Your task to perform on an android device: What is the news today? Image 0: 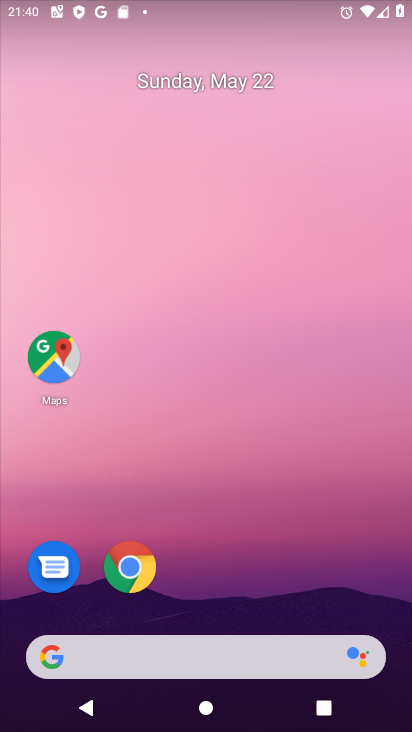
Step 0: click (184, 644)
Your task to perform on an android device: What is the news today? Image 1: 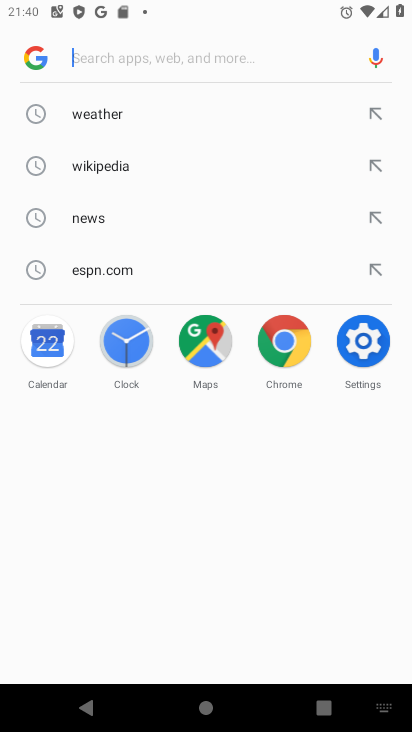
Step 1: type "news today ?"
Your task to perform on an android device: What is the news today? Image 2: 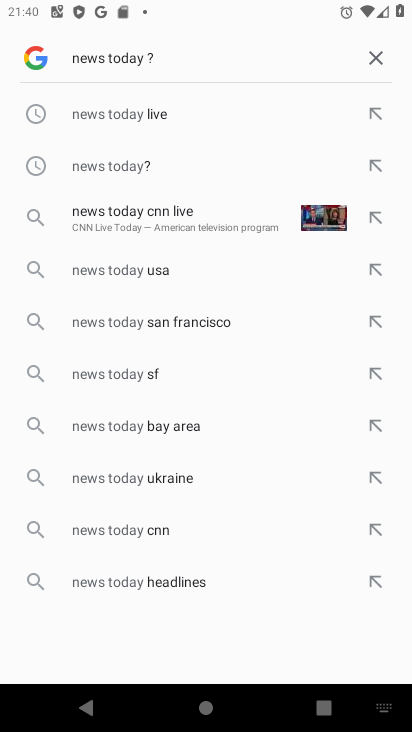
Step 2: click (148, 169)
Your task to perform on an android device: What is the news today? Image 3: 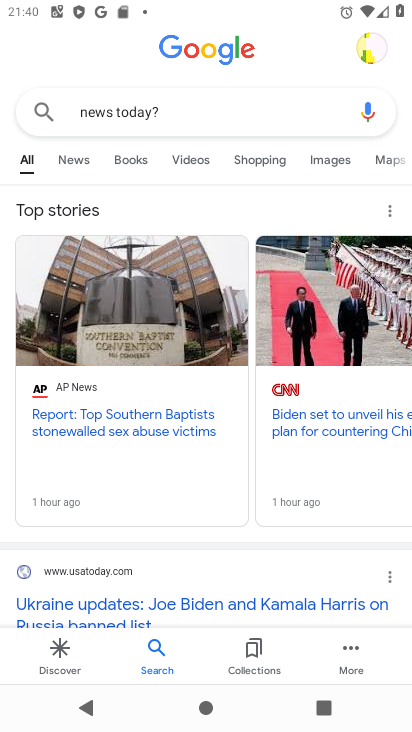
Step 3: task complete